Your task to perform on an android device: Open the Play Movies app and select the watchlist tab. Image 0: 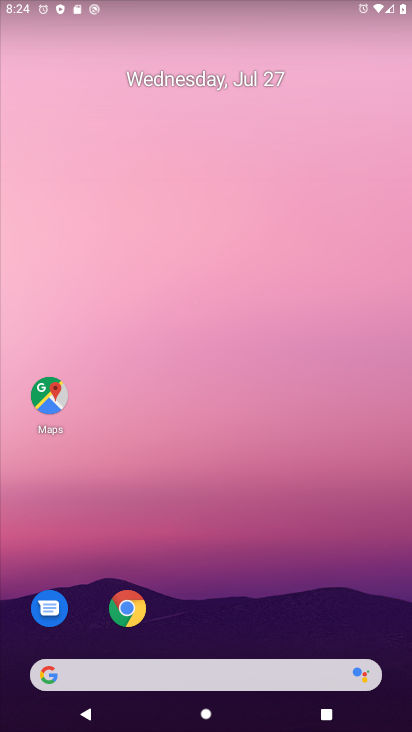
Step 0: drag from (291, 571) to (369, 59)
Your task to perform on an android device: Open the Play Movies app and select the watchlist tab. Image 1: 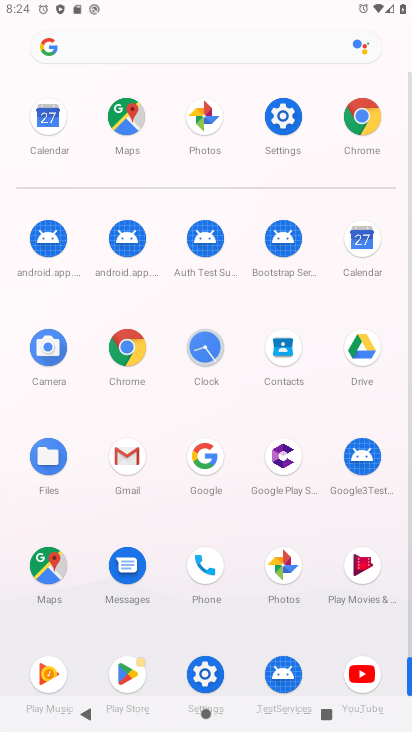
Step 1: click (358, 560)
Your task to perform on an android device: Open the Play Movies app and select the watchlist tab. Image 2: 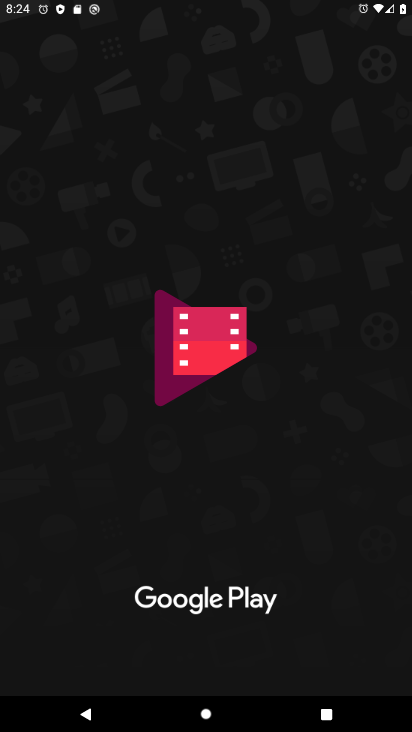
Step 2: task complete